Your task to perform on an android device: toggle pop-ups in chrome Image 0: 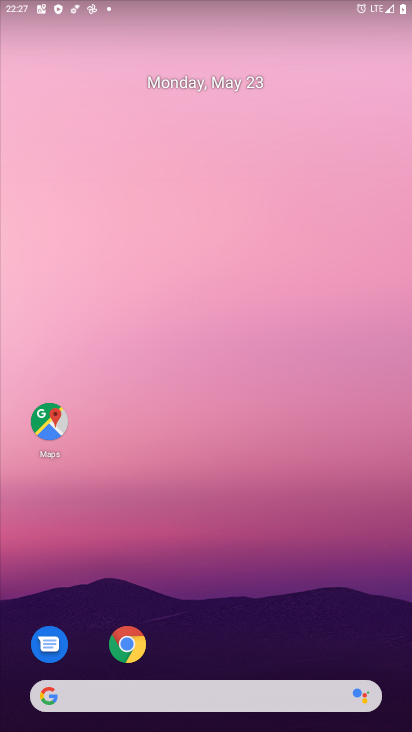
Step 0: click (126, 647)
Your task to perform on an android device: toggle pop-ups in chrome Image 1: 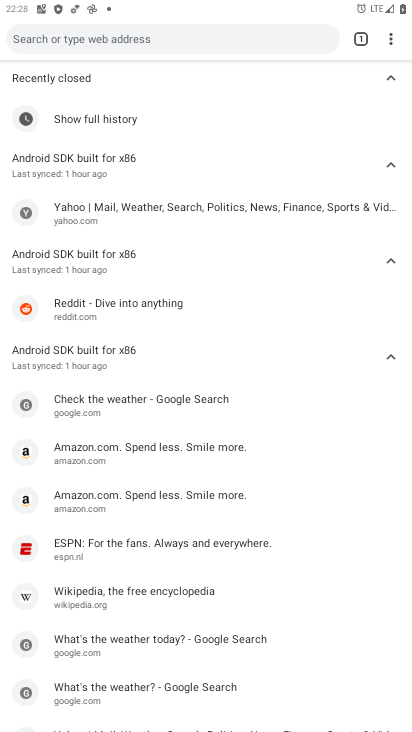
Step 1: click (385, 38)
Your task to perform on an android device: toggle pop-ups in chrome Image 2: 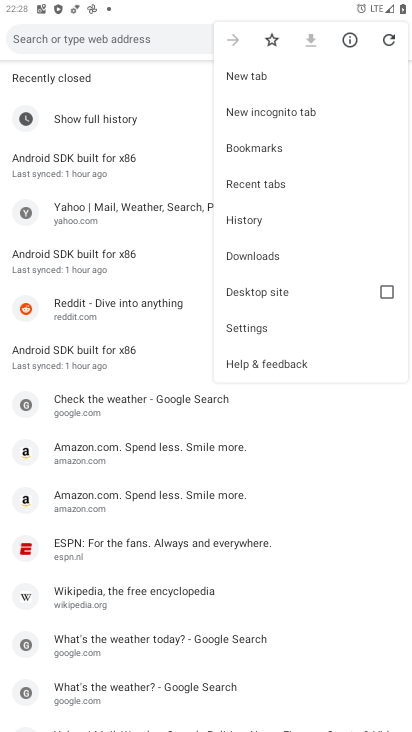
Step 2: click (262, 334)
Your task to perform on an android device: toggle pop-ups in chrome Image 3: 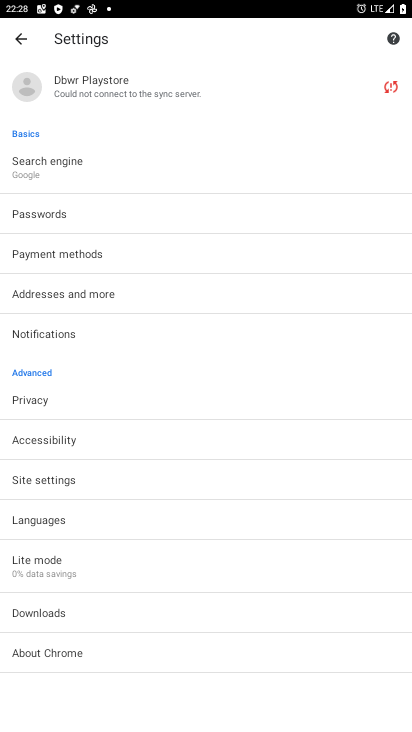
Step 3: click (50, 481)
Your task to perform on an android device: toggle pop-ups in chrome Image 4: 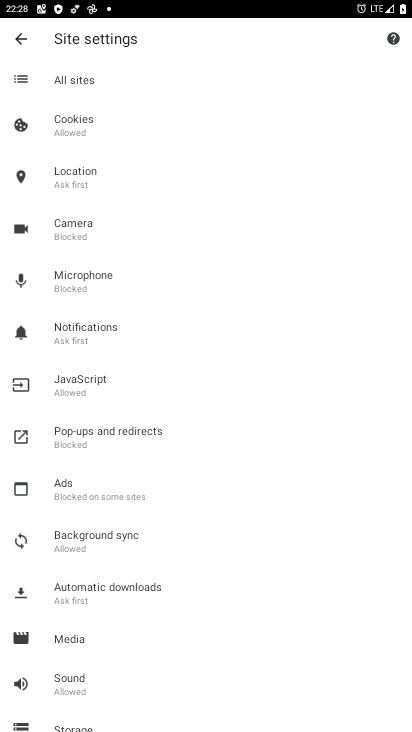
Step 4: click (90, 414)
Your task to perform on an android device: toggle pop-ups in chrome Image 5: 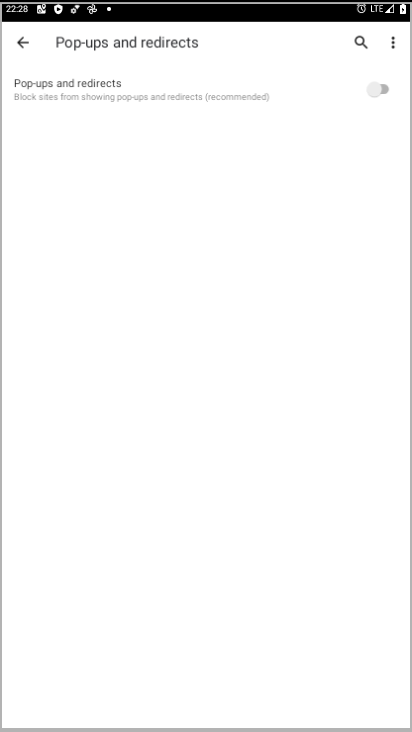
Step 5: click (99, 431)
Your task to perform on an android device: toggle pop-ups in chrome Image 6: 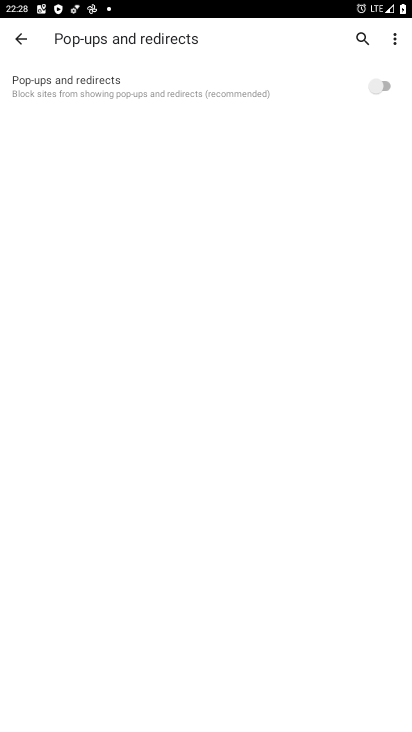
Step 6: click (386, 84)
Your task to perform on an android device: toggle pop-ups in chrome Image 7: 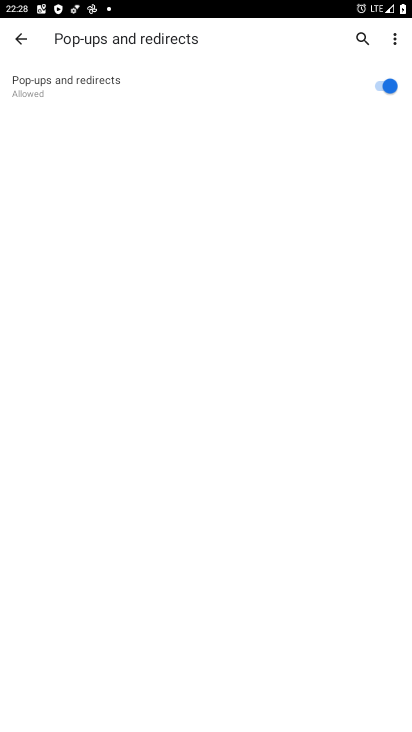
Step 7: task complete